Your task to perform on an android device: Open internet settings Image 0: 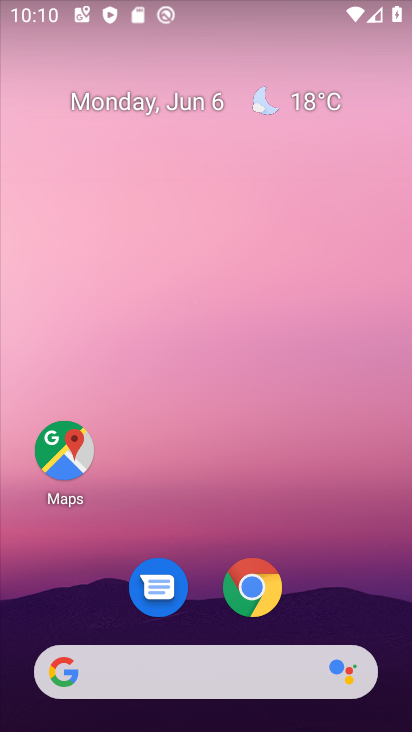
Step 0: drag from (379, 540) to (299, 72)
Your task to perform on an android device: Open internet settings Image 1: 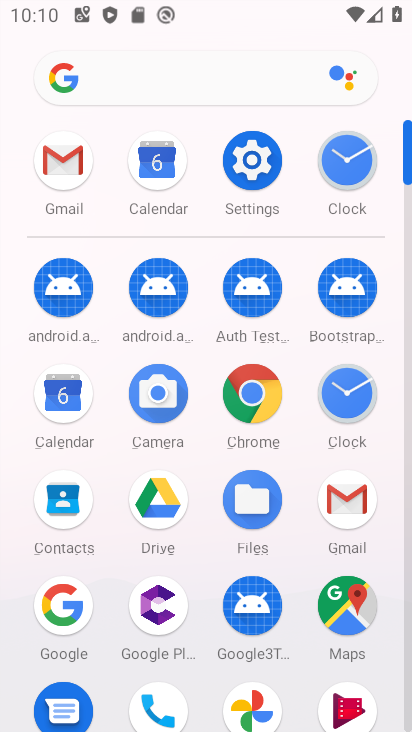
Step 1: click (261, 160)
Your task to perform on an android device: Open internet settings Image 2: 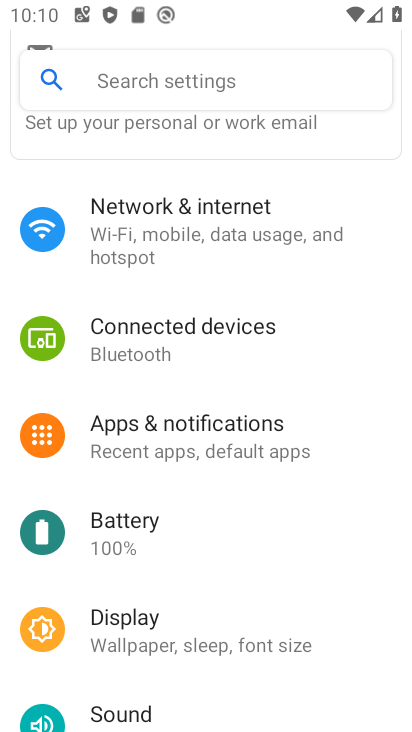
Step 2: click (257, 210)
Your task to perform on an android device: Open internet settings Image 3: 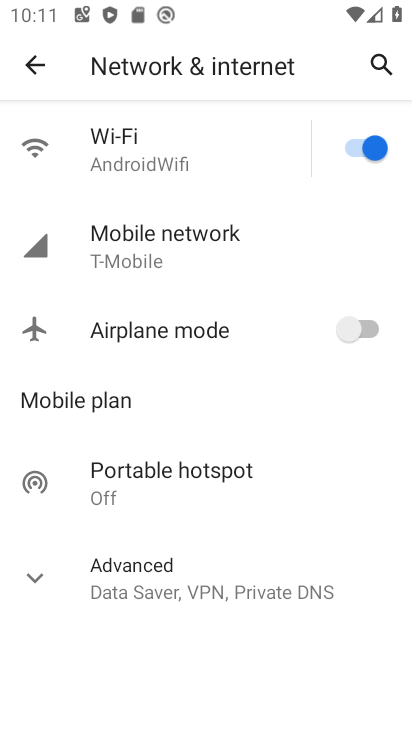
Step 3: click (192, 244)
Your task to perform on an android device: Open internet settings Image 4: 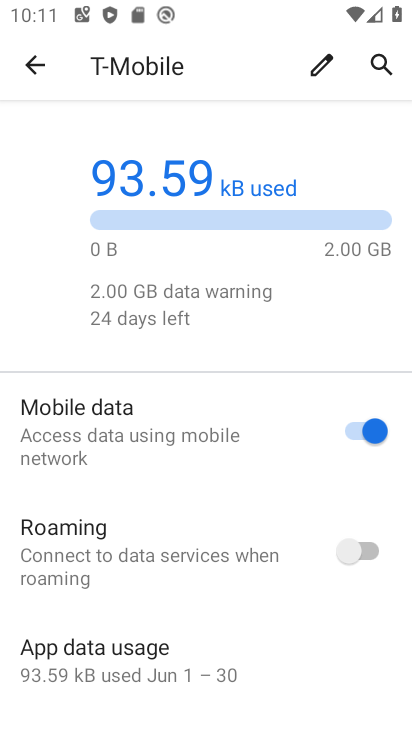
Step 4: task complete